Your task to perform on an android device: Search for seafood restaurants on Google Maps Image 0: 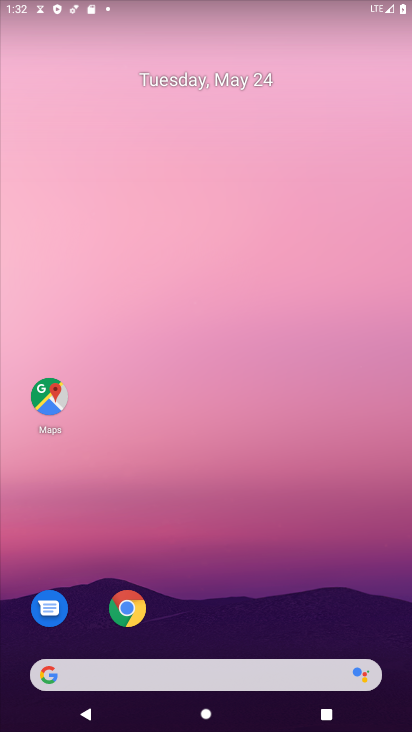
Step 0: click (46, 398)
Your task to perform on an android device: Search for seafood restaurants on Google Maps Image 1: 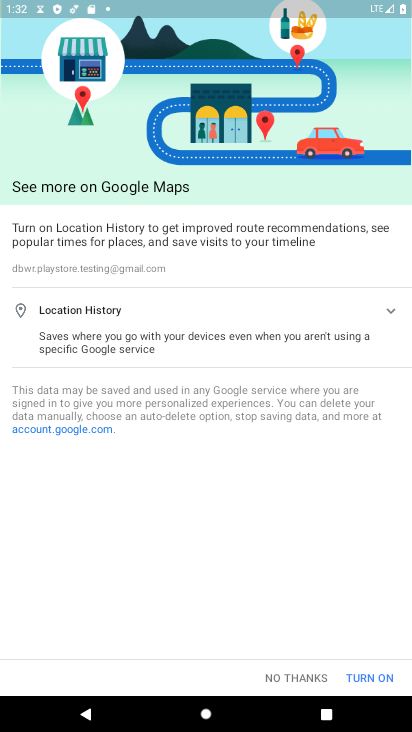
Step 1: click (287, 677)
Your task to perform on an android device: Search for seafood restaurants on Google Maps Image 2: 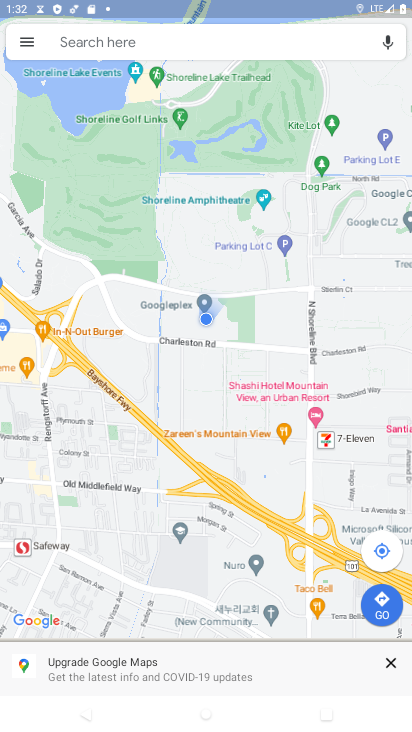
Step 2: click (149, 31)
Your task to perform on an android device: Search for seafood restaurants on Google Maps Image 3: 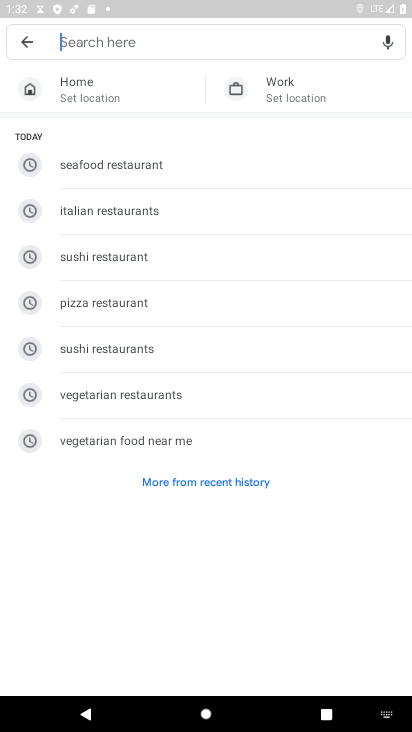
Step 3: click (176, 161)
Your task to perform on an android device: Search for seafood restaurants on Google Maps Image 4: 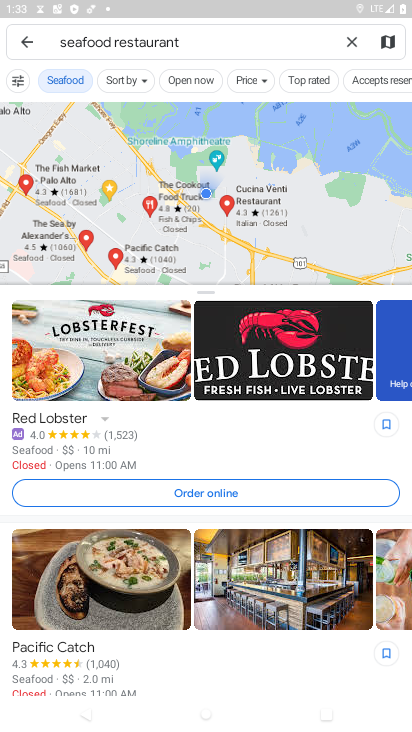
Step 4: task complete